Your task to perform on an android device: Go to Android settings Image 0: 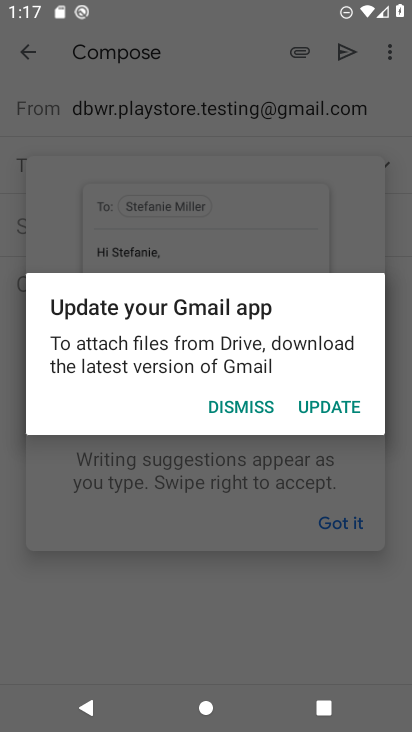
Step 0: press home button
Your task to perform on an android device: Go to Android settings Image 1: 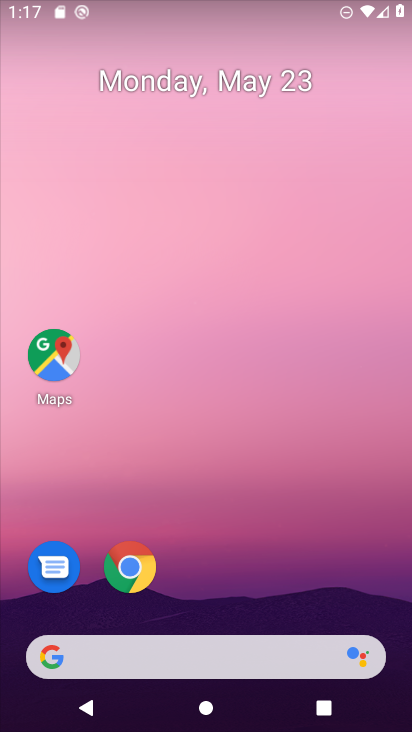
Step 1: drag from (352, 613) to (242, 5)
Your task to perform on an android device: Go to Android settings Image 2: 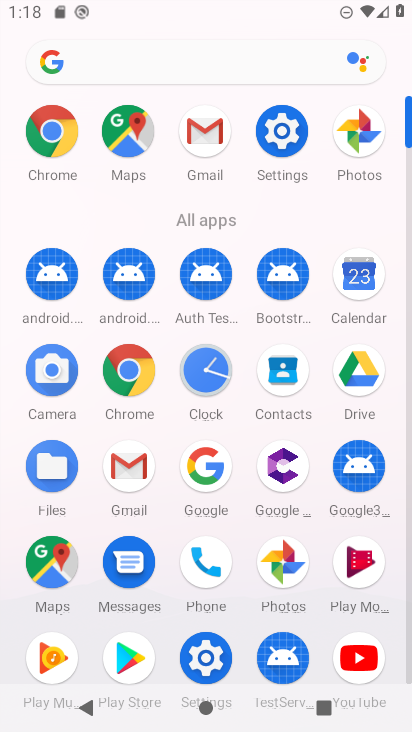
Step 2: click (223, 645)
Your task to perform on an android device: Go to Android settings Image 3: 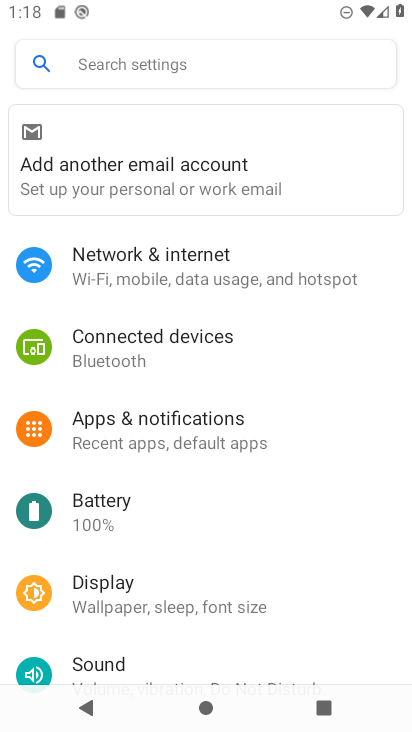
Step 3: drag from (318, 583) to (215, 6)
Your task to perform on an android device: Go to Android settings Image 4: 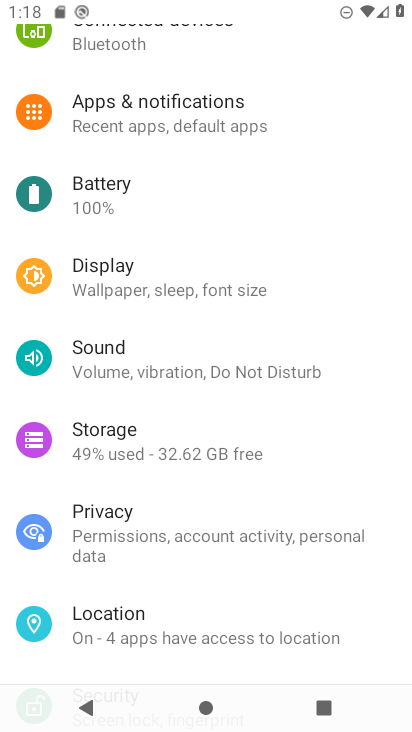
Step 4: drag from (370, 640) to (270, 71)
Your task to perform on an android device: Go to Android settings Image 5: 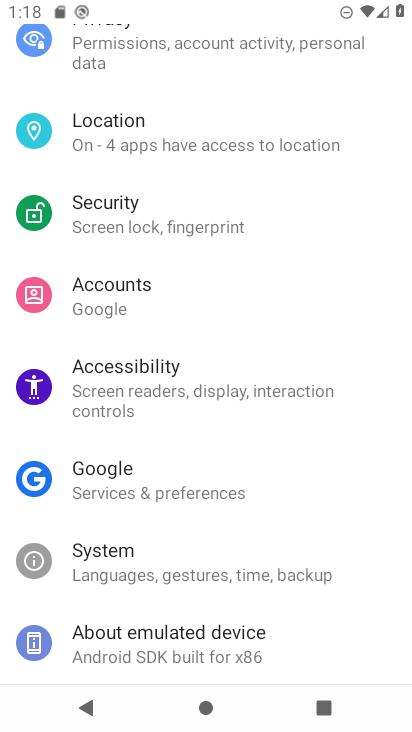
Step 5: click (301, 649)
Your task to perform on an android device: Go to Android settings Image 6: 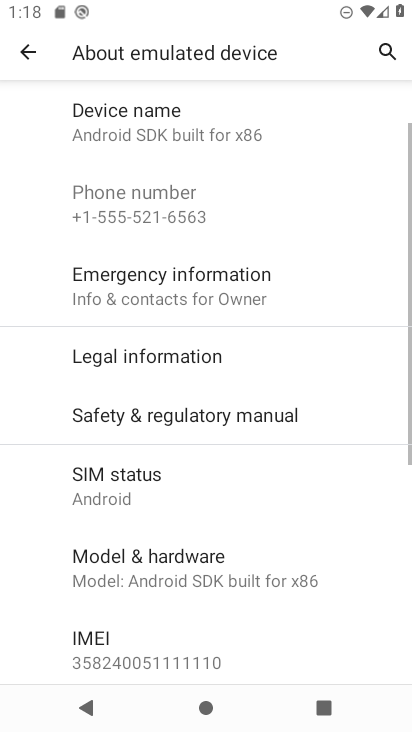
Step 6: drag from (182, 595) to (100, 242)
Your task to perform on an android device: Go to Android settings Image 7: 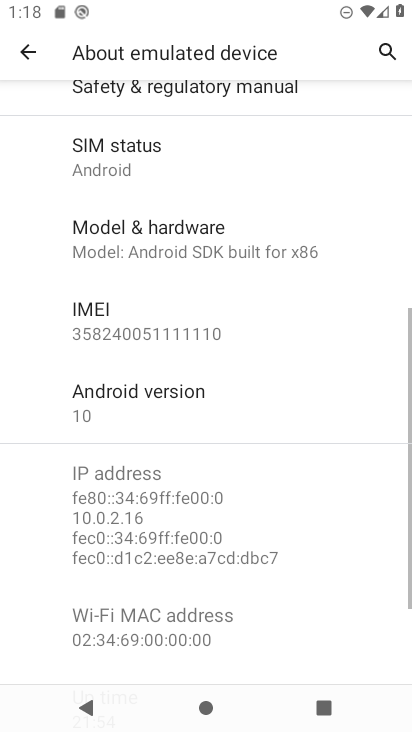
Step 7: click (182, 423)
Your task to perform on an android device: Go to Android settings Image 8: 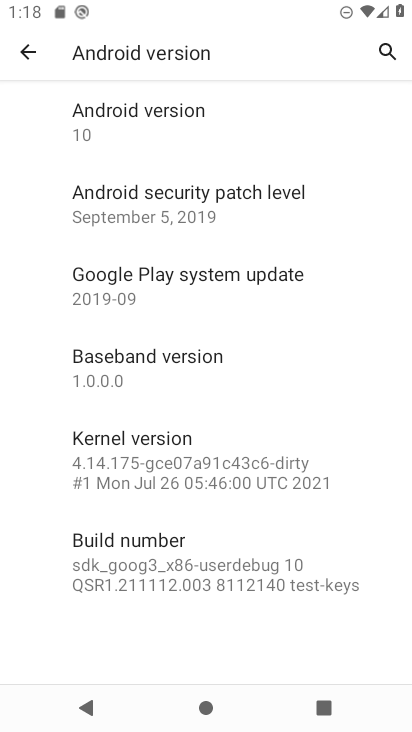
Step 8: task complete